Your task to perform on an android device: check out phone information Image 0: 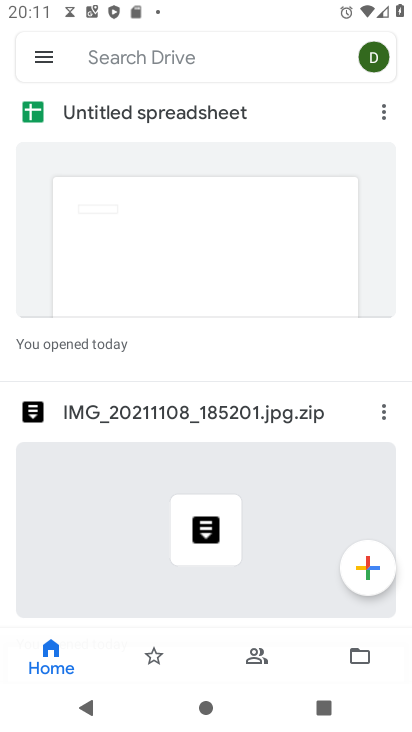
Step 0: press home button
Your task to perform on an android device: check out phone information Image 1: 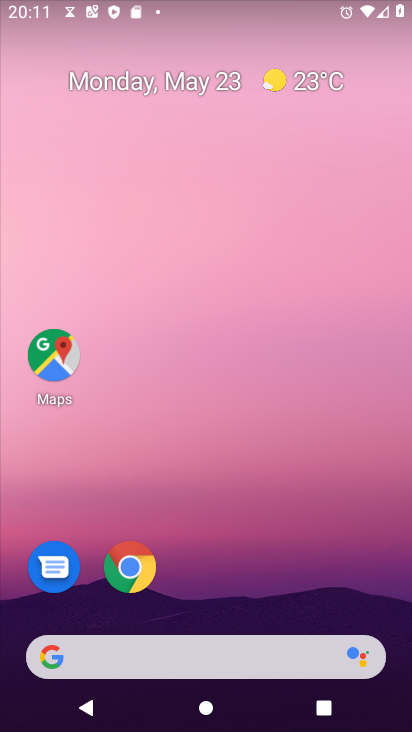
Step 1: drag from (243, 564) to (280, 258)
Your task to perform on an android device: check out phone information Image 2: 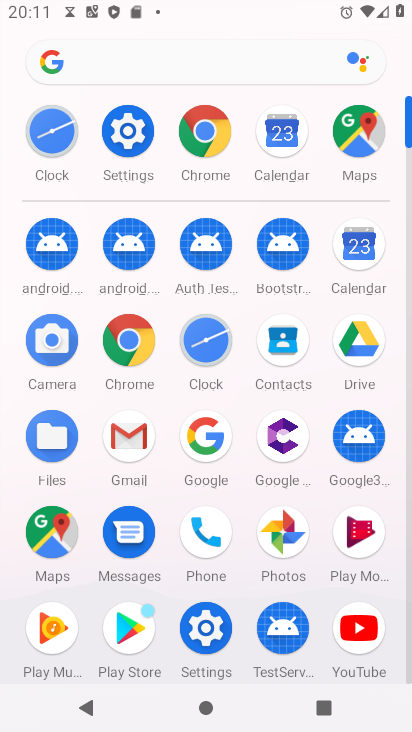
Step 2: click (144, 117)
Your task to perform on an android device: check out phone information Image 3: 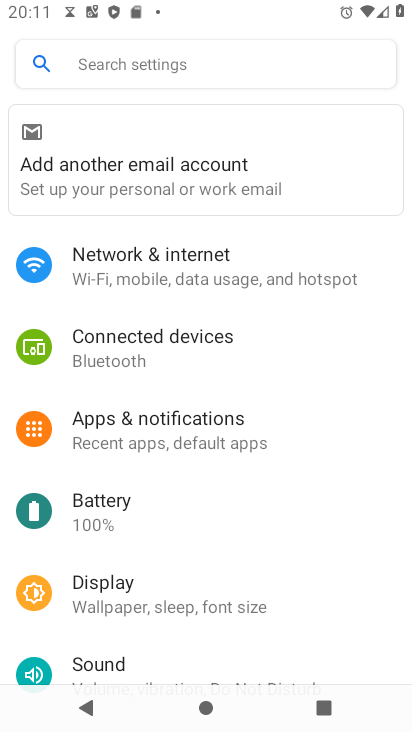
Step 3: drag from (238, 612) to (322, 156)
Your task to perform on an android device: check out phone information Image 4: 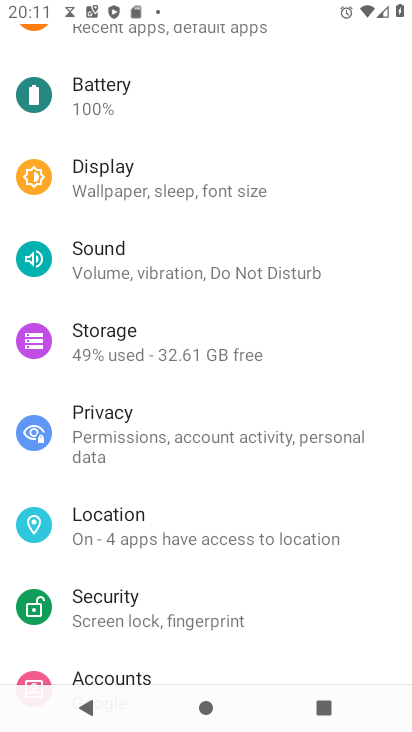
Step 4: drag from (235, 561) to (313, 48)
Your task to perform on an android device: check out phone information Image 5: 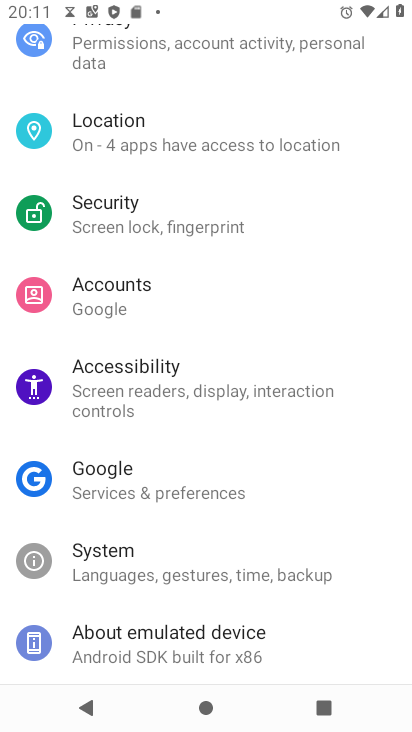
Step 5: drag from (226, 535) to (267, 165)
Your task to perform on an android device: check out phone information Image 6: 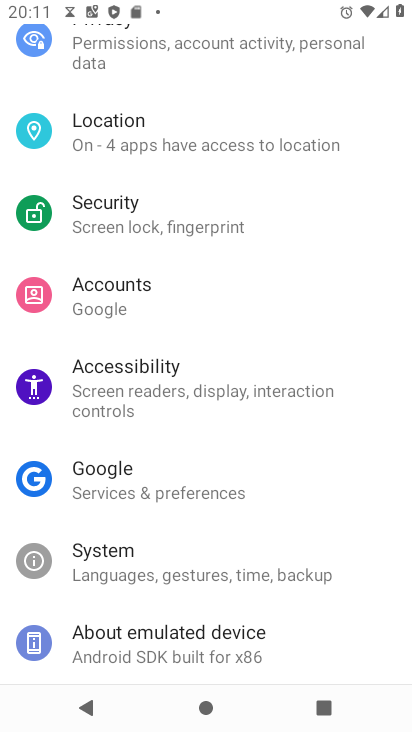
Step 6: click (206, 632)
Your task to perform on an android device: check out phone information Image 7: 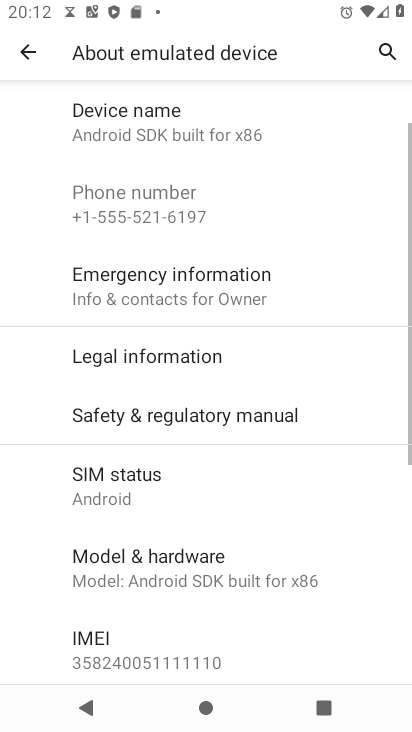
Step 7: task complete